Your task to perform on an android device: Go to sound settings Image 0: 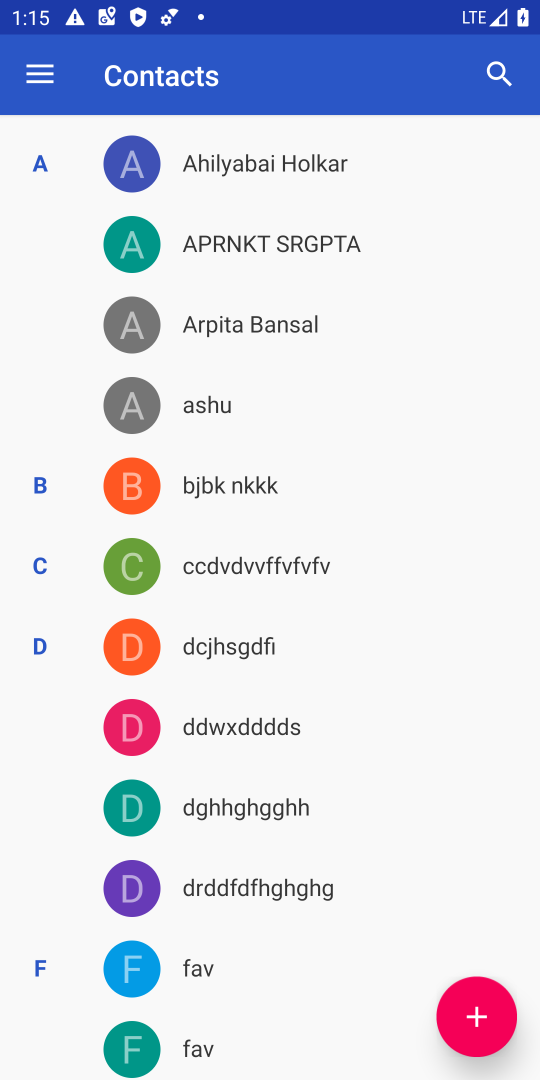
Step 0: press home button
Your task to perform on an android device: Go to sound settings Image 1: 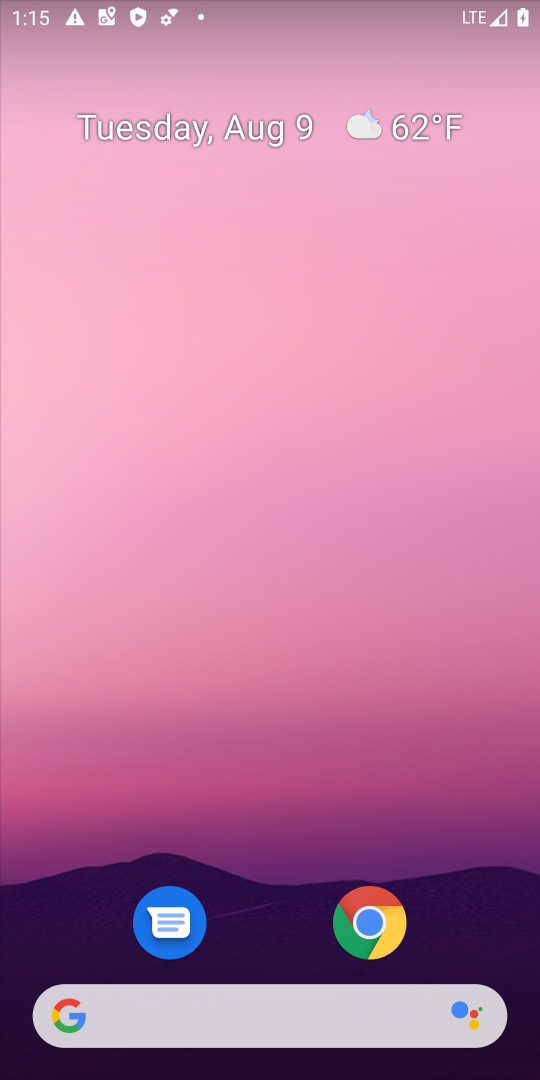
Step 1: drag from (273, 957) to (164, 31)
Your task to perform on an android device: Go to sound settings Image 2: 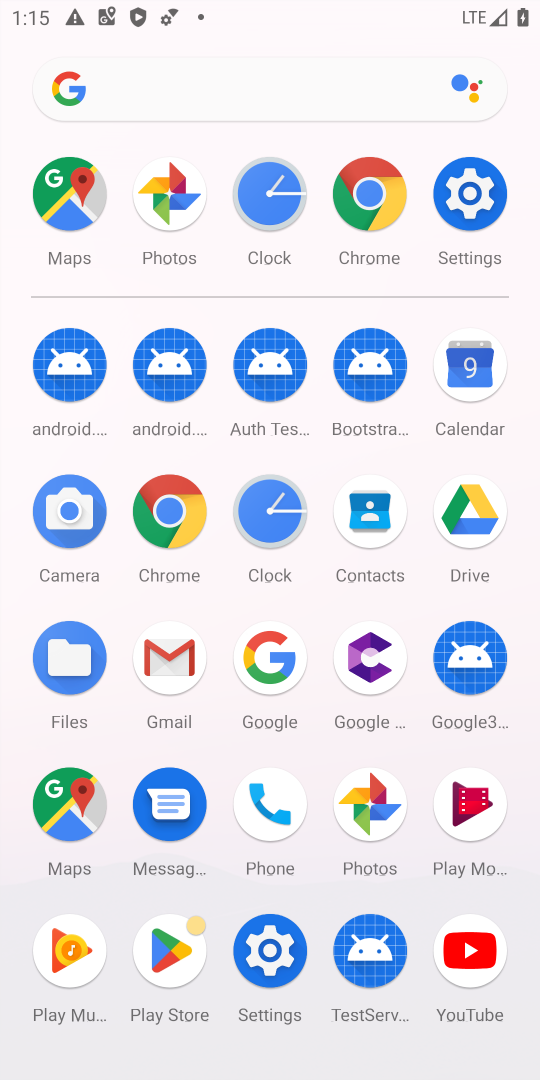
Step 2: click (490, 203)
Your task to perform on an android device: Go to sound settings Image 3: 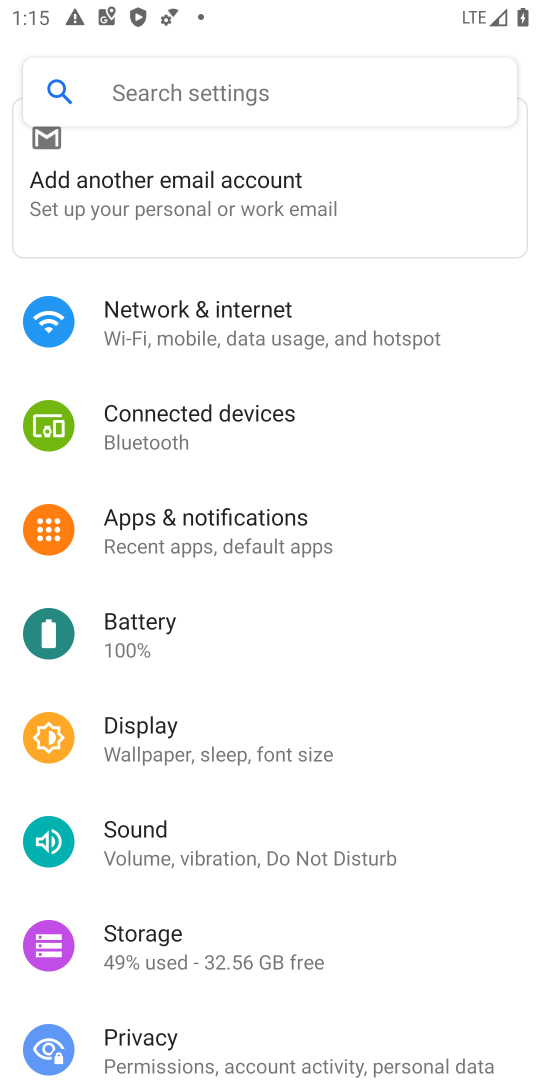
Step 3: click (270, 863)
Your task to perform on an android device: Go to sound settings Image 4: 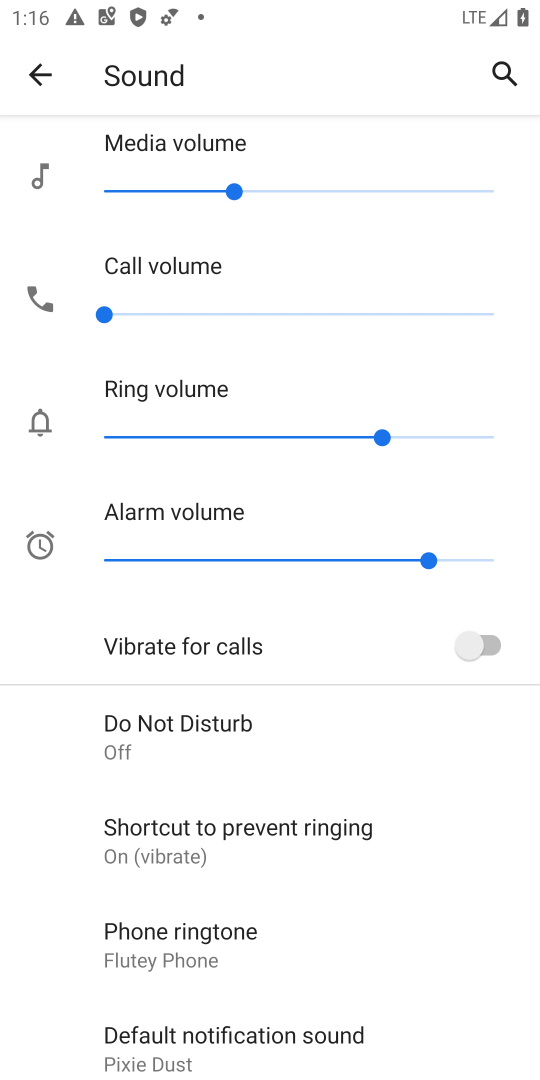
Step 4: task complete